Your task to perform on an android device: find photos in the google photos app Image 0: 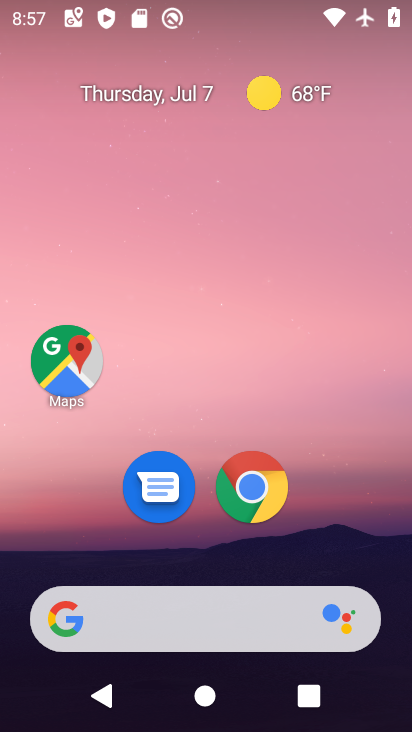
Step 0: drag from (193, 569) to (148, 101)
Your task to perform on an android device: find photos in the google photos app Image 1: 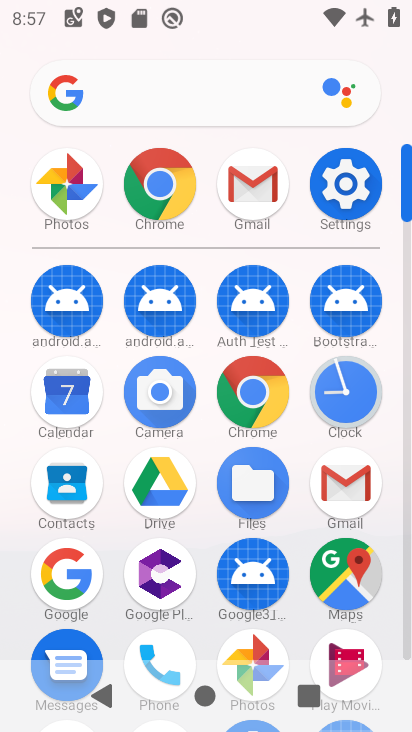
Step 1: click (83, 203)
Your task to perform on an android device: find photos in the google photos app Image 2: 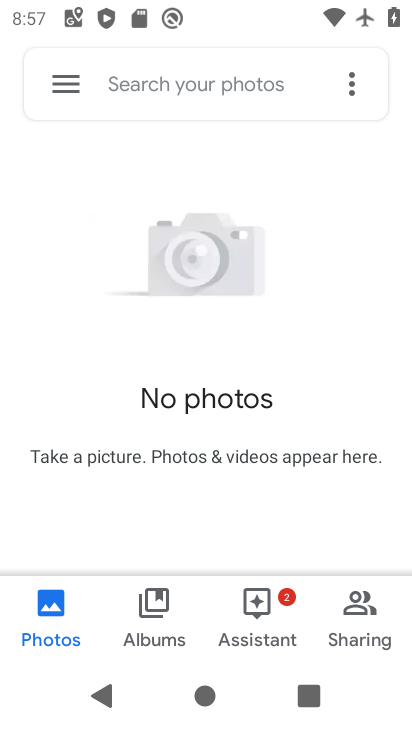
Step 2: task complete